Your task to perform on an android device: Search for seafood restaurants on Google Maps Image 0: 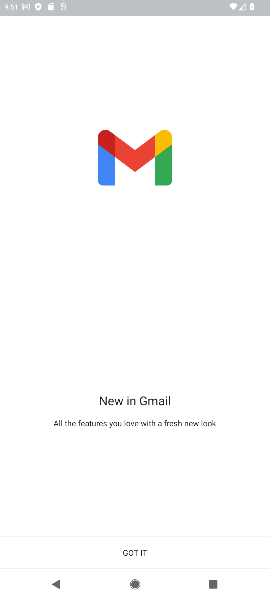
Step 0: press back button
Your task to perform on an android device: Search for seafood restaurants on Google Maps Image 1: 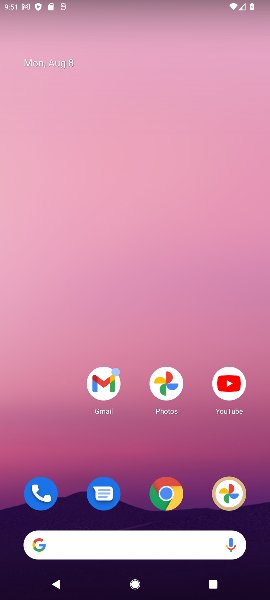
Step 1: drag from (60, 437) to (147, 80)
Your task to perform on an android device: Search for seafood restaurants on Google Maps Image 2: 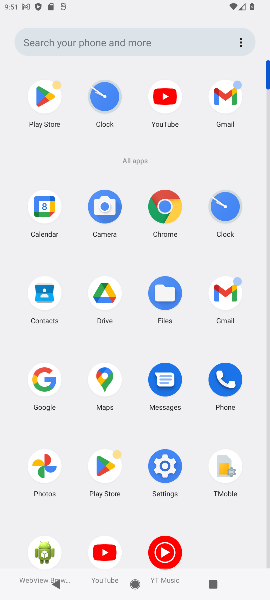
Step 2: click (108, 368)
Your task to perform on an android device: Search for seafood restaurants on Google Maps Image 3: 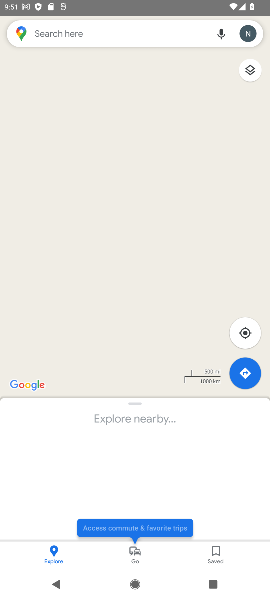
Step 3: click (80, 42)
Your task to perform on an android device: Search for seafood restaurants on Google Maps Image 4: 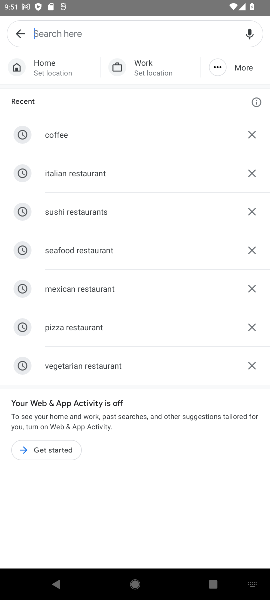
Step 4: click (98, 252)
Your task to perform on an android device: Search for seafood restaurants on Google Maps Image 5: 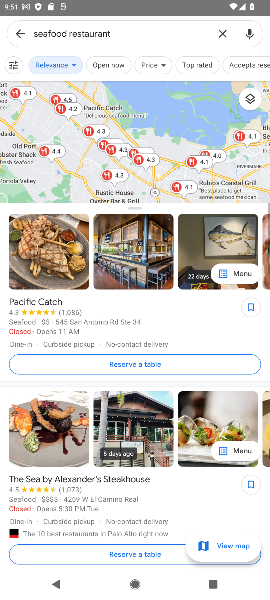
Step 5: task complete